Your task to perform on an android device: What's the weather going to be this weekend? Image 0: 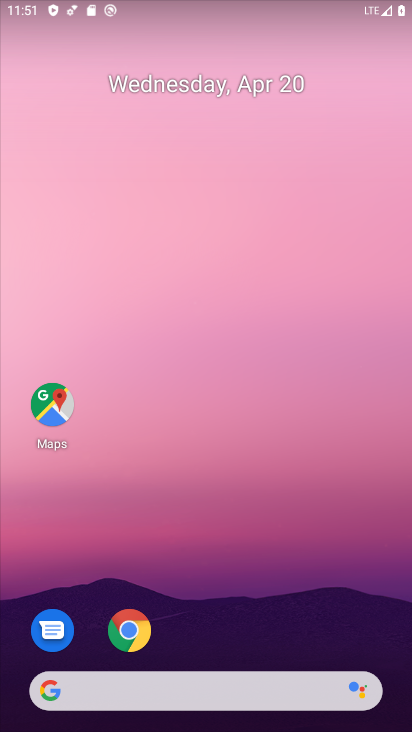
Step 0: drag from (141, 690) to (316, 197)
Your task to perform on an android device: What's the weather going to be this weekend? Image 1: 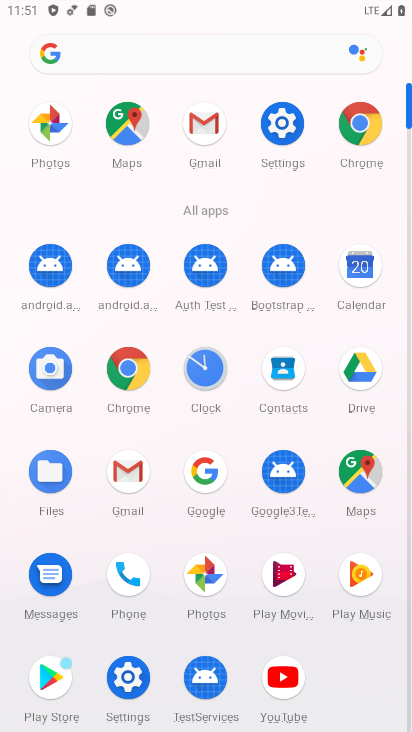
Step 1: click (209, 483)
Your task to perform on an android device: What's the weather going to be this weekend? Image 2: 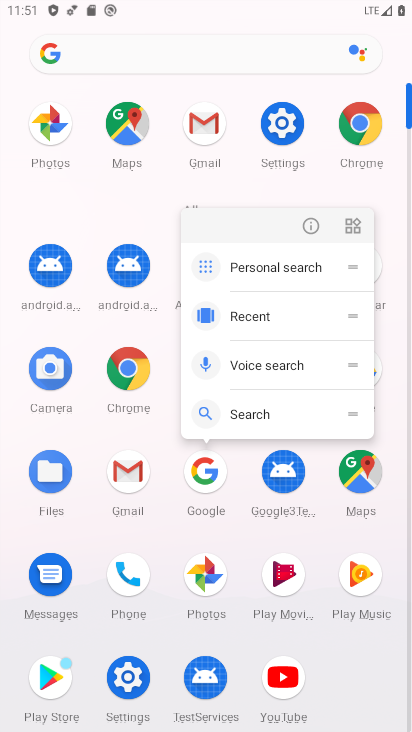
Step 2: click (206, 479)
Your task to perform on an android device: What's the weather going to be this weekend? Image 3: 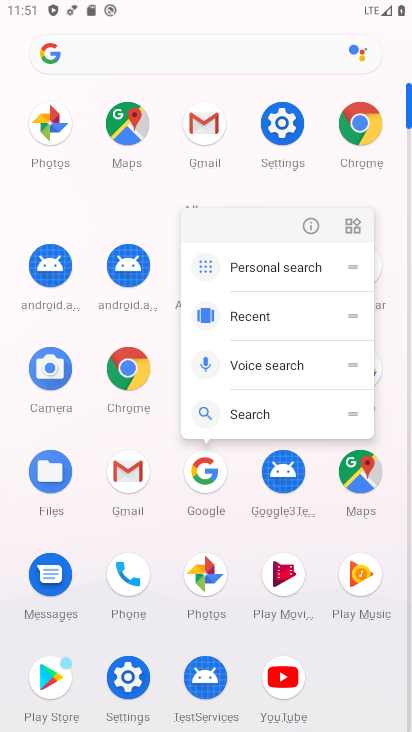
Step 3: click (203, 479)
Your task to perform on an android device: What's the weather going to be this weekend? Image 4: 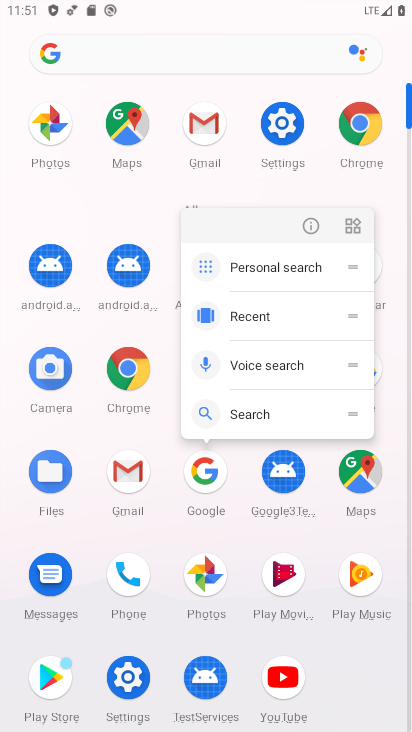
Step 4: click (201, 480)
Your task to perform on an android device: What's the weather going to be this weekend? Image 5: 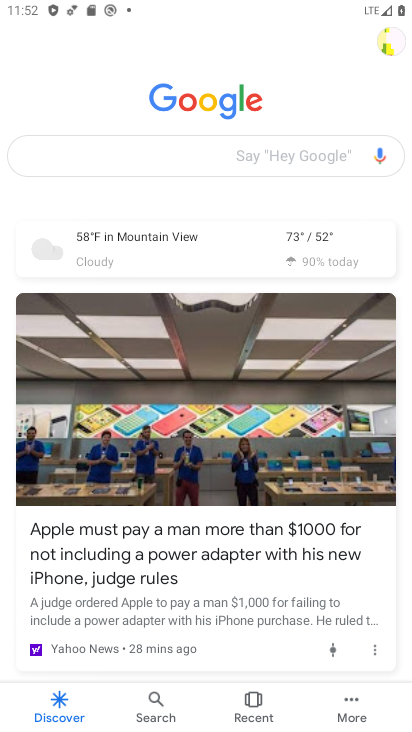
Step 5: click (293, 240)
Your task to perform on an android device: What's the weather going to be this weekend? Image 6: 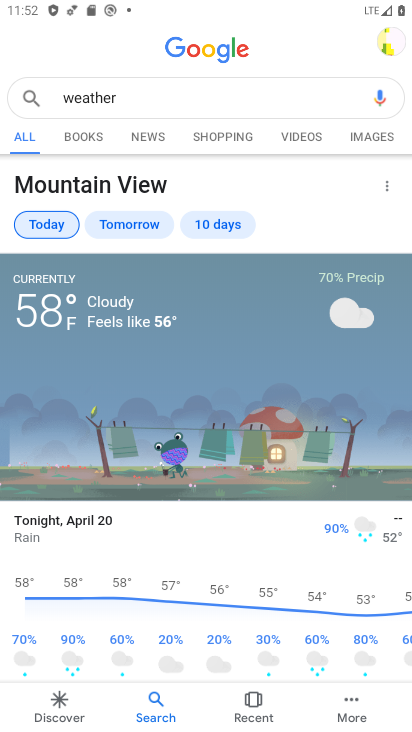
Step 6: click (213, 226)
Your task to perform on an android device: What's the weather going to be this weekend? Image 7: 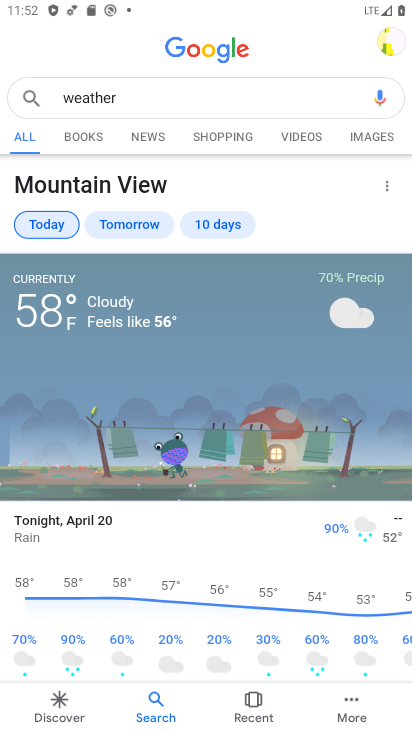
Step 7: click (218, 221)
Your task to perform on an android device: What's the weather going to be this weekend? Image 8: 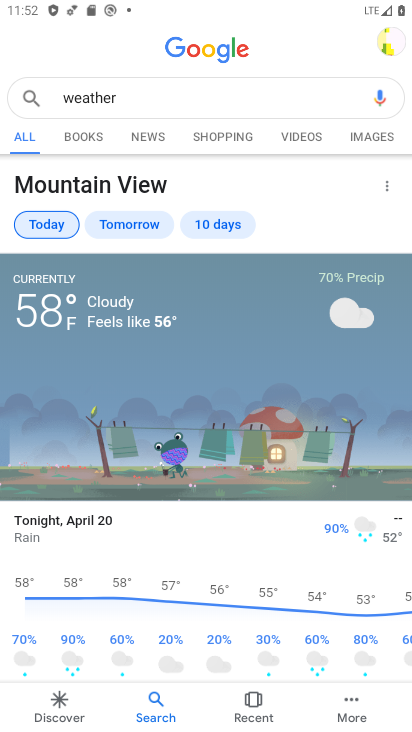
Step 8: click (226, 215)
Your task to perform on an android device: What's the weather going to be this weekend? Image 9: 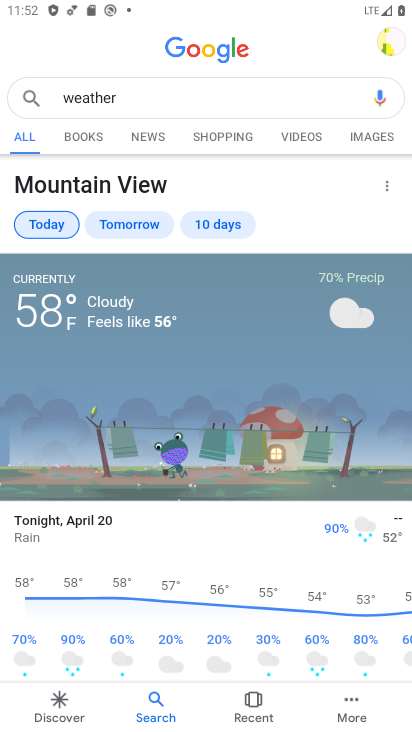
Step 9: click (228, 223)
Your task to perform on an android device: What's the weather going to be this weekend? Image 10: 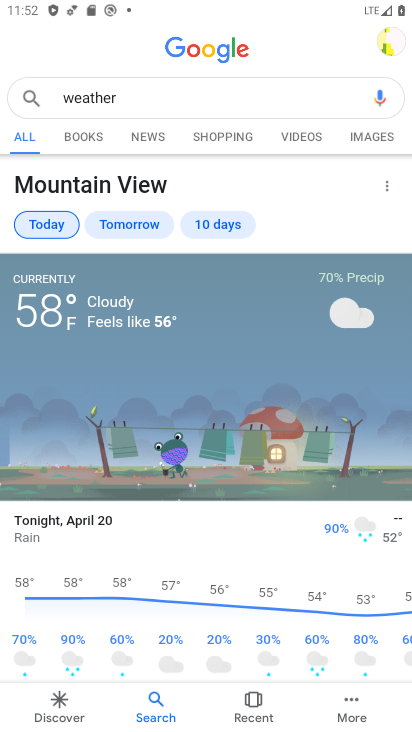
Step 10: click (213, 224)
Your task to perform on an android device: What's the weather going to be this weekend? Image 11: 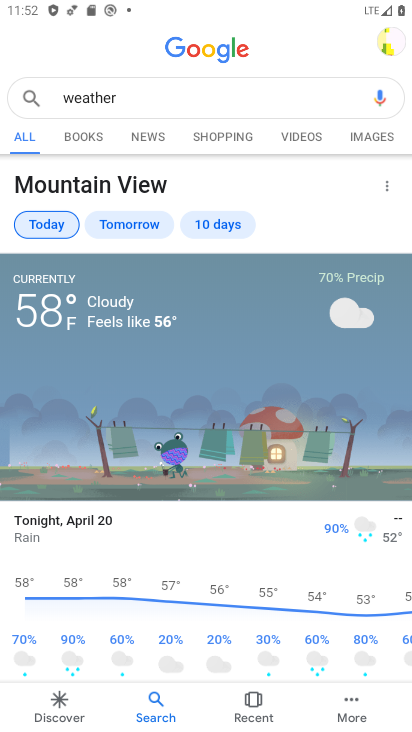
Step 11: click (207, 226)
Your task to perform on an android device: What's the weather going to be this weekend? Image 12: 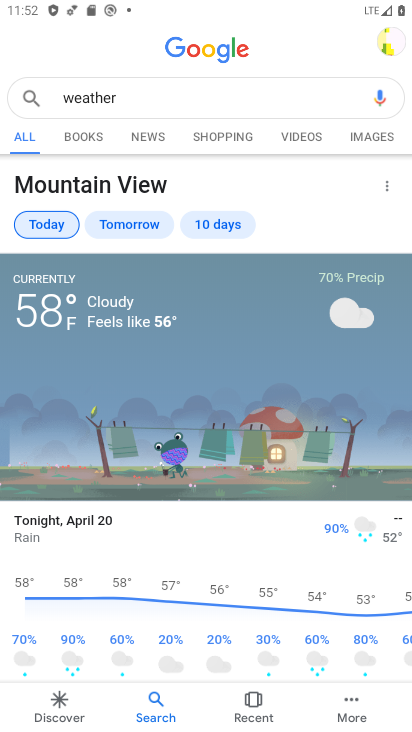
Step 12: click (128, 221)
Your task to perform on an android device: What's the weather going to be this weekend? Image 13: 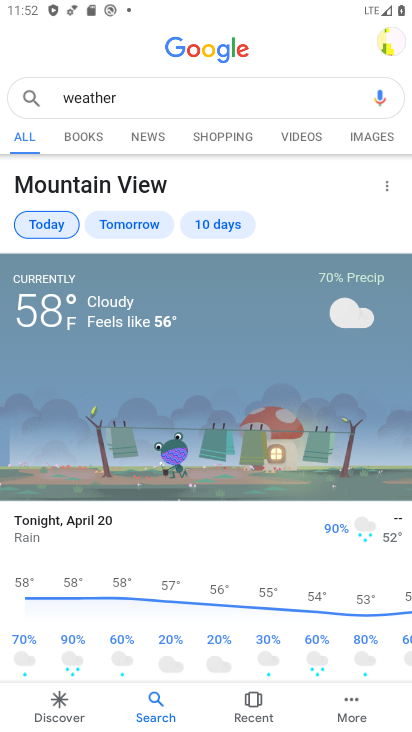
Step 13: click (208, 222)
Your task to perform on an android device: What's the weather going to be this weekend? Image 14: 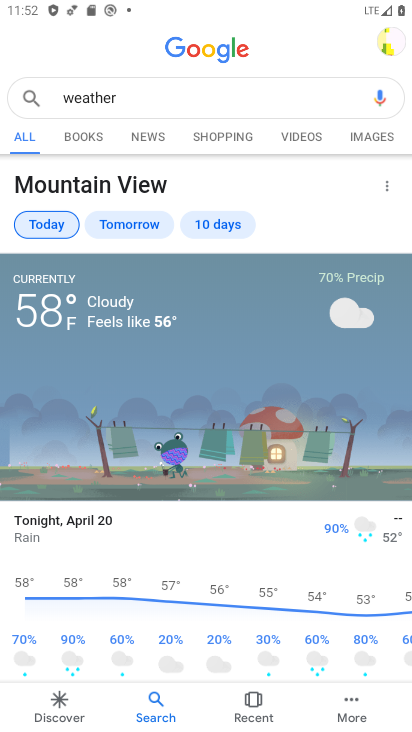
Step 14: task complete